Your task to perform on an android device: turn vacation reply on in the gmail app Image 0: 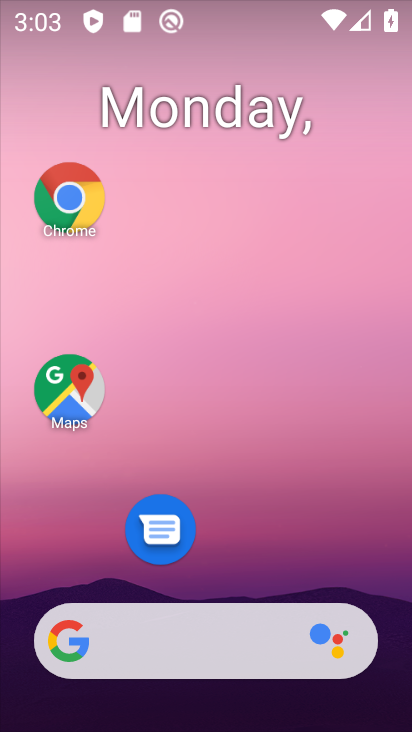
Step 0: drag from (285, 659) to (300, 118)
Your task to perform on an android device: turn vacation reply on in the gmail app Image 1: 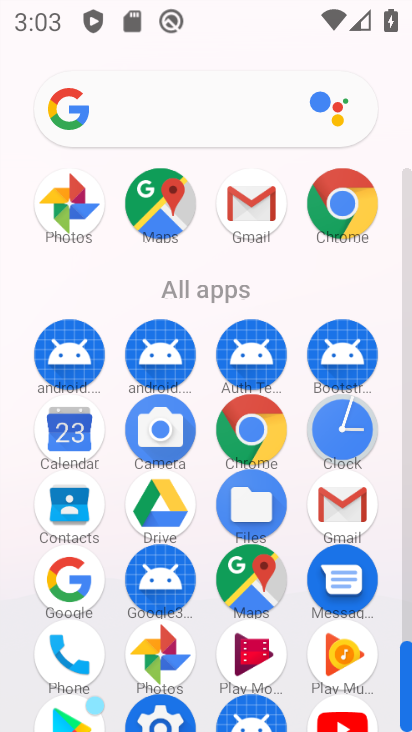
Step 1: drag from (182, 553) to (232, 249)
Your task to perform on an android device: turn vacation reply on in the gmail app Image 2: 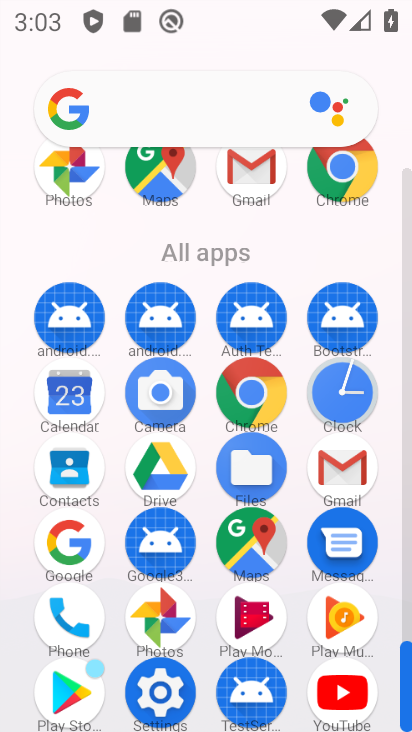
Step 2: click (353, 468)
Your task to perform on an android device: turn vacation reply on in the gmail app Image 3: 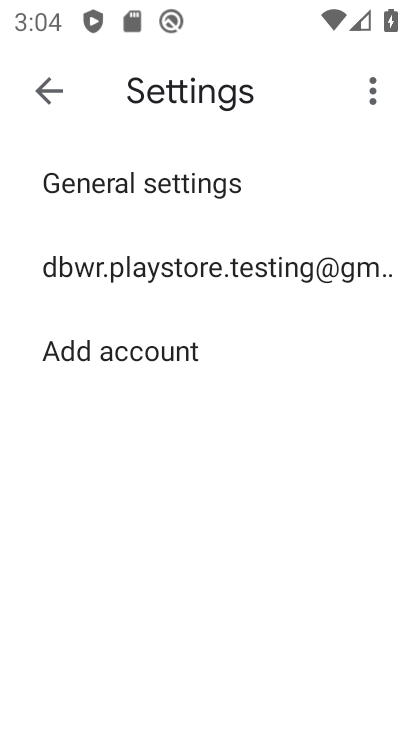
Step 3: click (220, 280)
Your task to perform on an android device: turn vacation reply on in the gmail app Image 4: 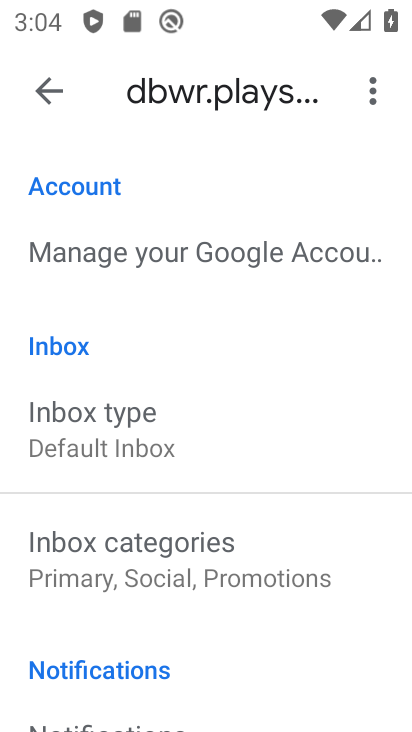
Step 4: drag from (170, 574) to (172, 30)
Your task to perform on an android device: turn vacation reply on in the gmail app Image 5: 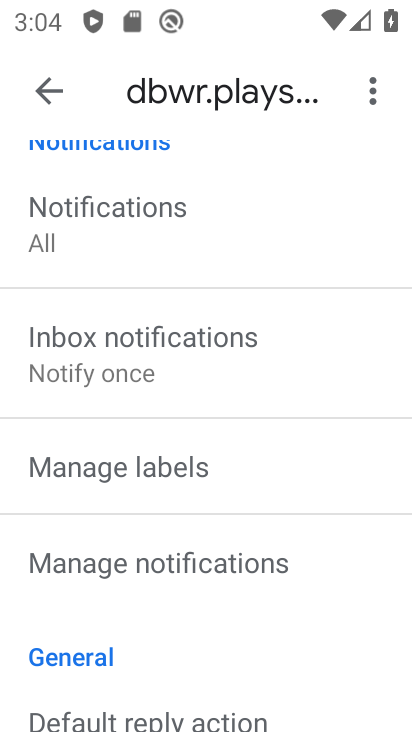
Step 5: drag from (164, 586) to (240, 158)
Your task to perform on an android device: turn vacation reply on in the gmail app Image 6: 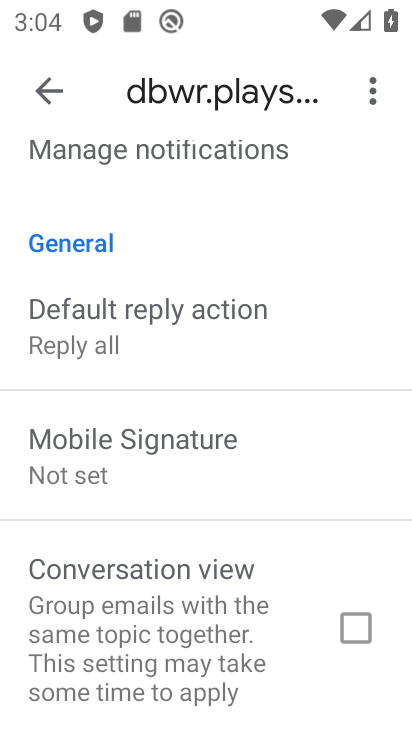
Step 6: drag from (157, 591) to (195, 288)
Your task to perform on an android device: turn vacation reply on in the gmail app Image 7: 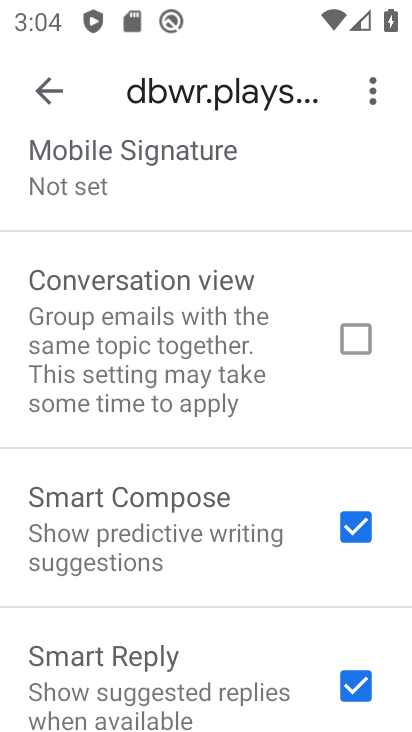
Step 7: drag from (175, 572) to (228, 193)
Your task to perform on an android device: turn vacation reply on in the gmail app Image 8: 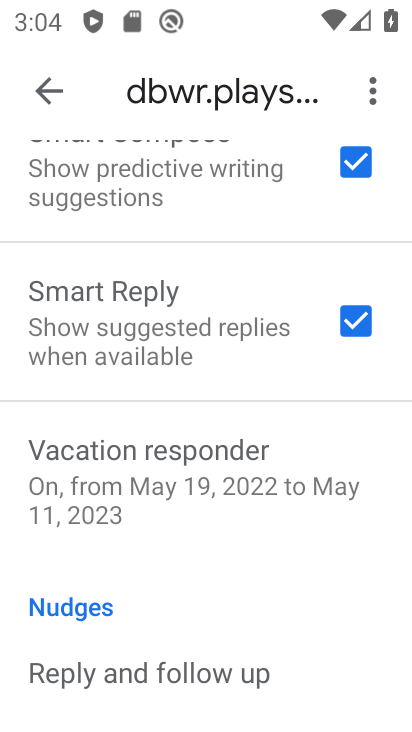
Step 8: click (214, 474)
Your task to perform on an android device: turn vacation reply on in the gmail app Image 9: 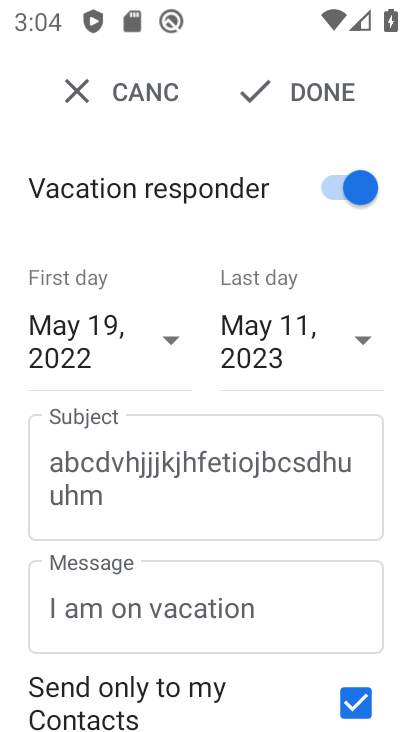
Step 9: task complete